Your task to perform on an android device: turn on data saver in the chrome app Image 0: 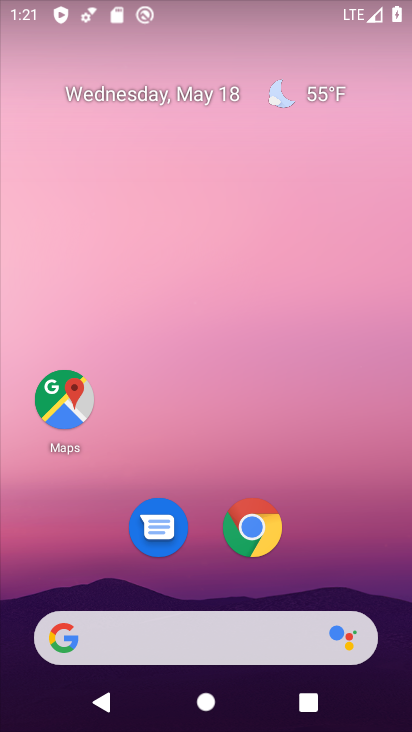
Step 0: drag from (346, 559) to (301, 728)
Your task to perform on an android device: turn on data saver in the chrome app Image 1: 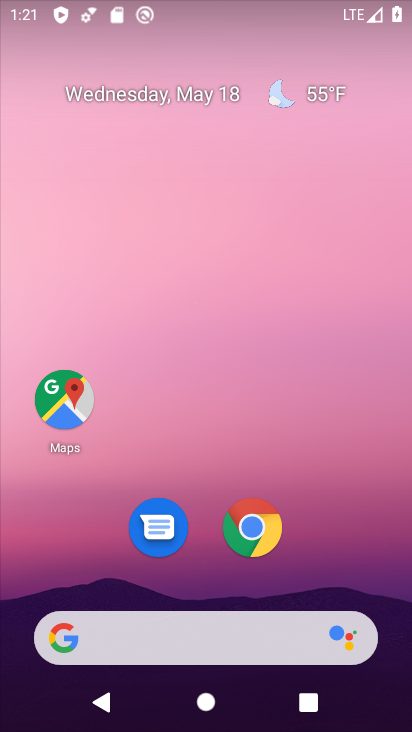
Step 1: click (252, 526)
Your task to perform on an android device: turn on data saver in the chrome app Image 2: 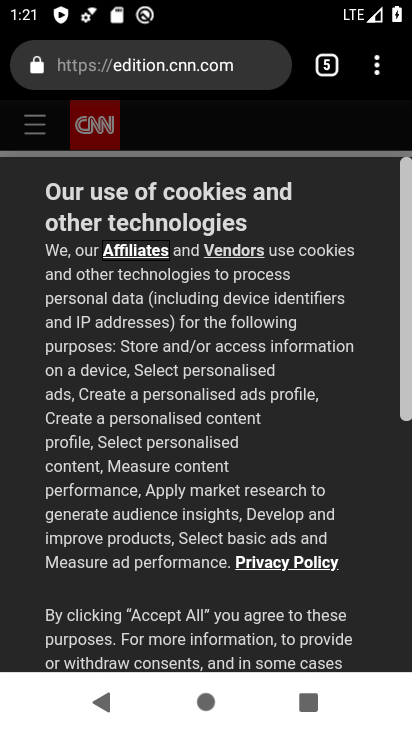
Step 2: click (375, 58)
Your task to perform on an android device: turn on data saver in the chrome app Image 3: 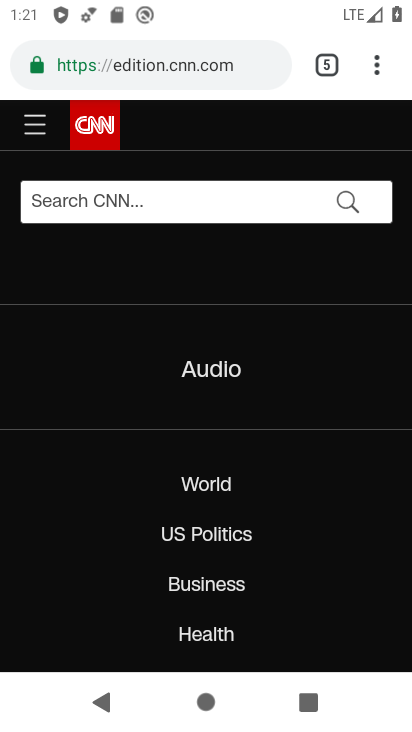
Step 3: click (367, 58)
Your task to perform on an android device: turn on data saver in the chrome app Image 4: 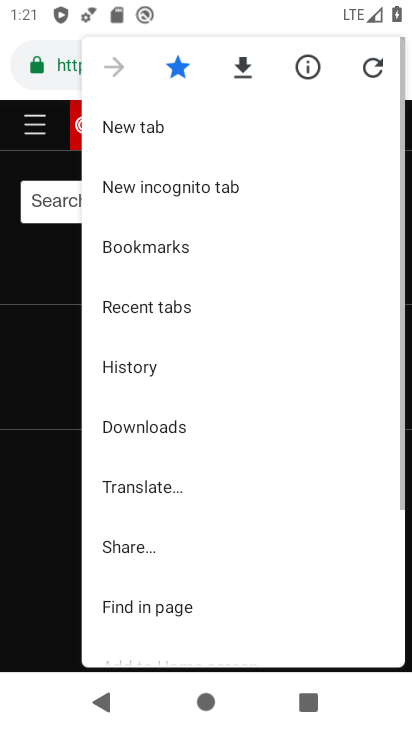
Step 4: drag from (301, 550) to (267, 223)
Your task to perform on an android device: turn on data saver in the chrome app Image 5: 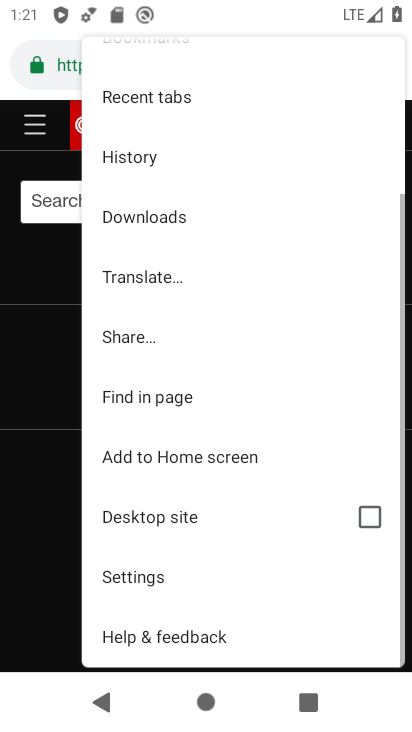
Step 5: click (190, 579)
Your task to perform on an android device: turn on data saver in the chrome app Image 6: 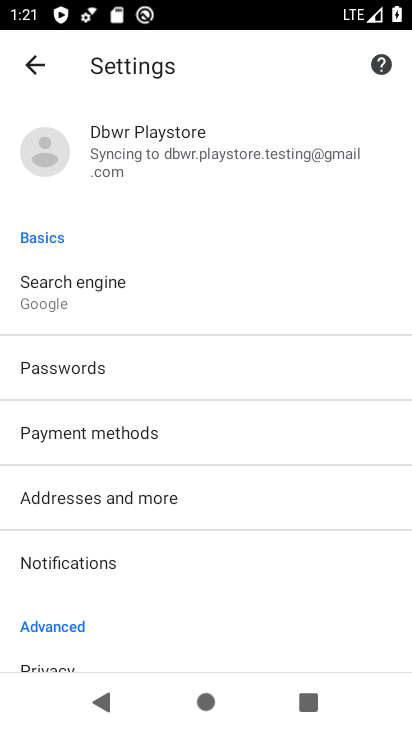
Step 6: drag from (220, 577) to (215, 157)
Your task to perform on an android device: turn on data saver in the chrome app Image 7: 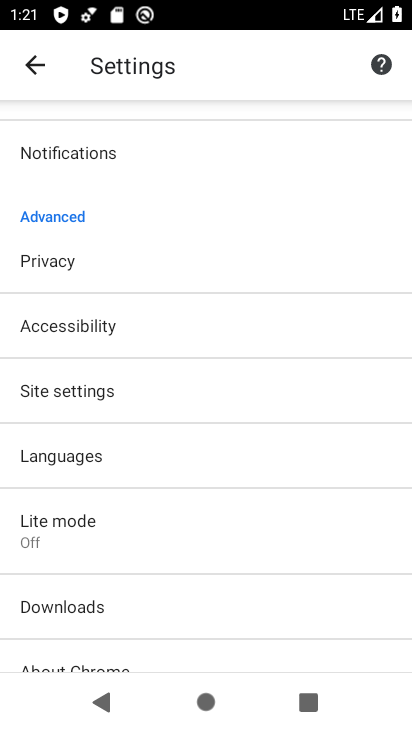
Step 7: click (188, 513)
Your task to perform on an android device: turn on data saver in the chrome app Image 8: 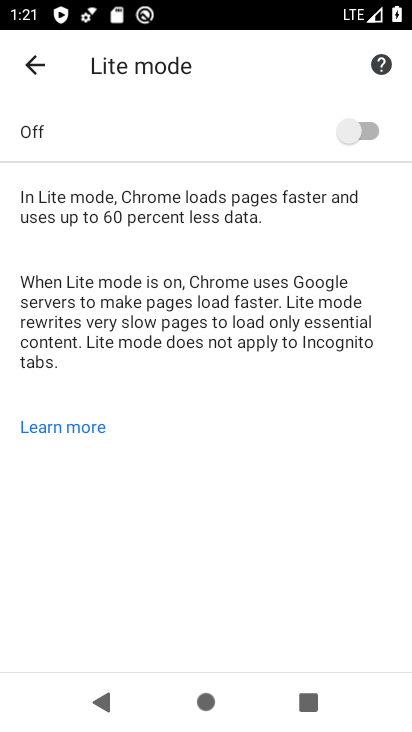
Step 8: click (356, 126)
Your task to perform on an android device: turn on data saver in the chrome app Image 9: 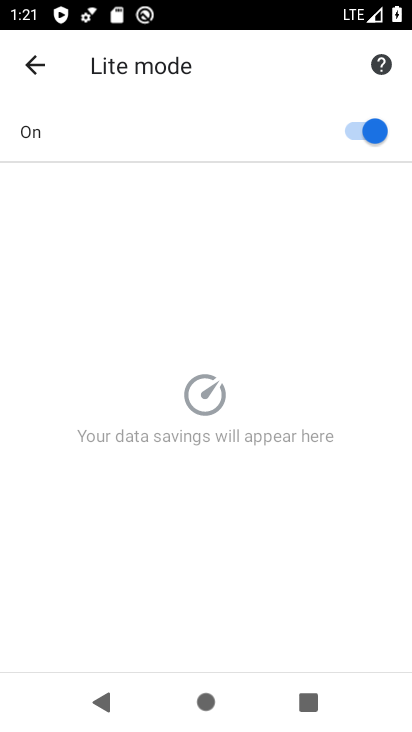
Step 9: task complete